Your task to perform on an android device: Go to Amazon Image 0: 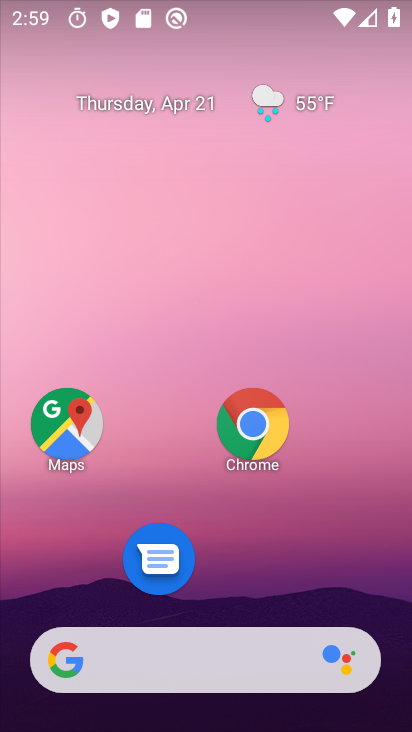
Step 0: click (248, 423)
Your task to perform on an android device: Go to Amazon Image 1: 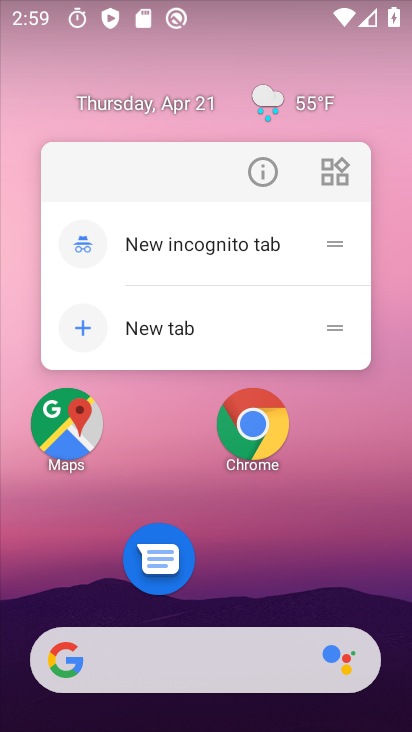
Step 1: click (264, 546)
Your task to perform on an android device: Go to Amazon Image 2: 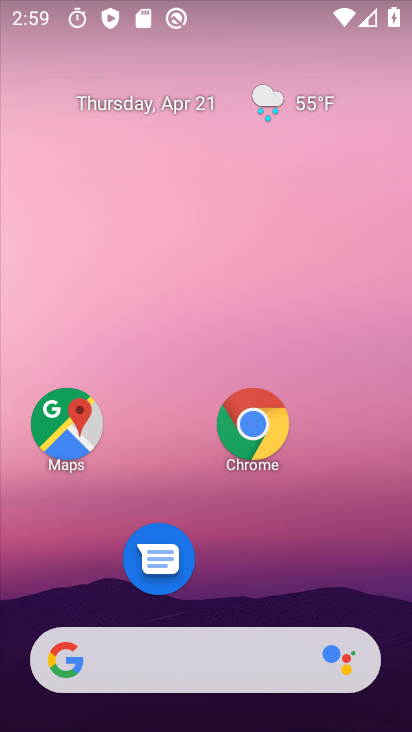
Step 2: click (249, 422)
Your task to perform on an android device: Go to Amazon Image 3: 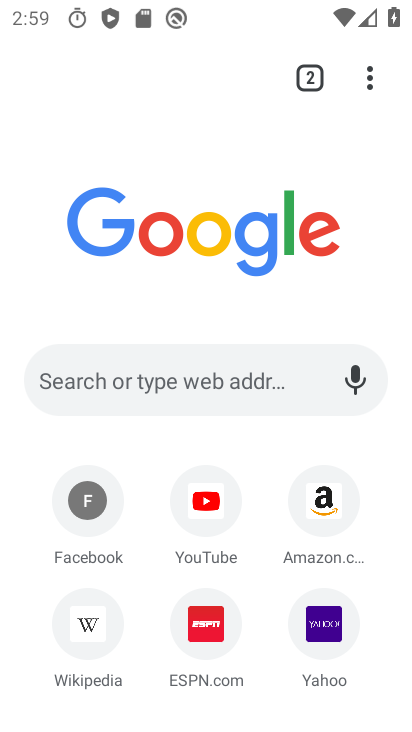
Step 3: click (329, 505)
Your task to perform on an android device: Go to Amazon Image 4: 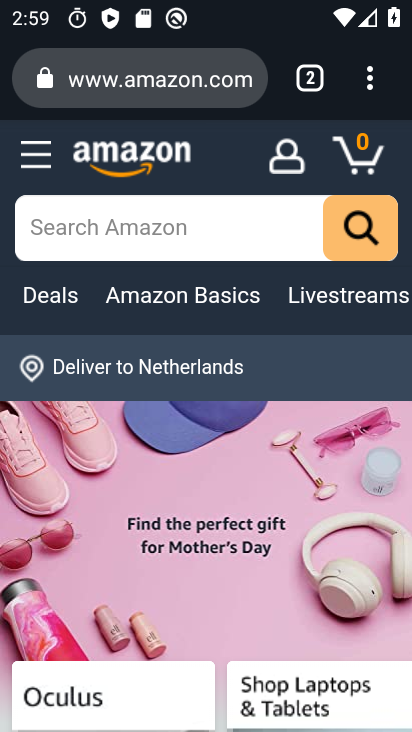
Step 4: task complete